Your task to perform on an android device: Open network settings Image 0: 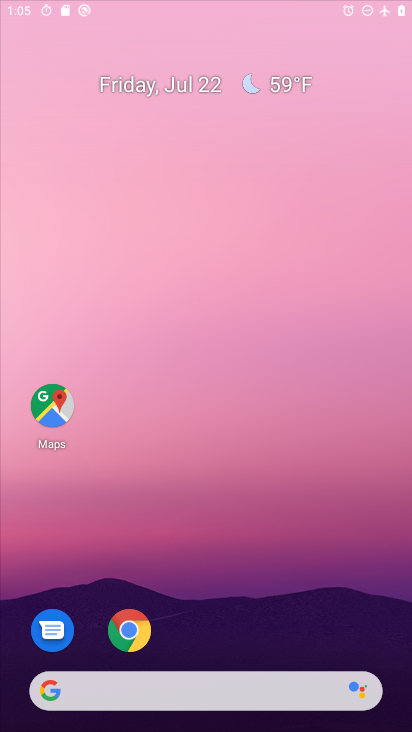
Step 0: press home button
Your task to perform on an android device: Open network settings Image 1: 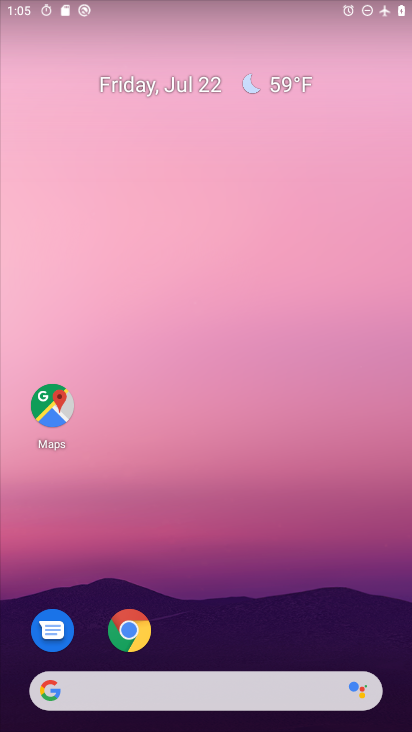
Step 1: drag from (258, 653) to (310, 96)
Your task to perform on an android device: Open network settings Image 2: 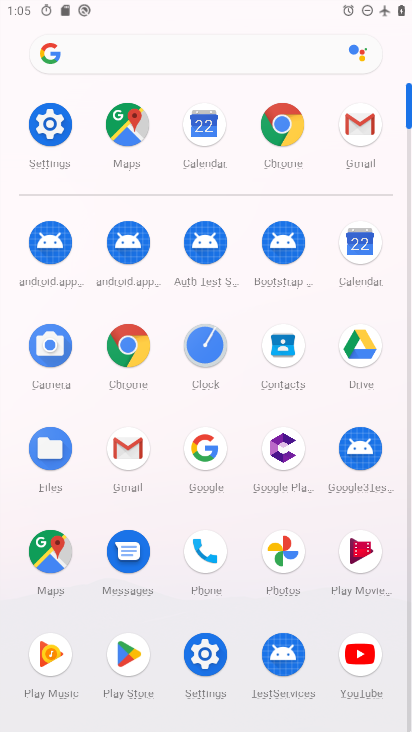
Step 2: click (50, 134)
Your task to perform on an android device: Open network settings Image 3: 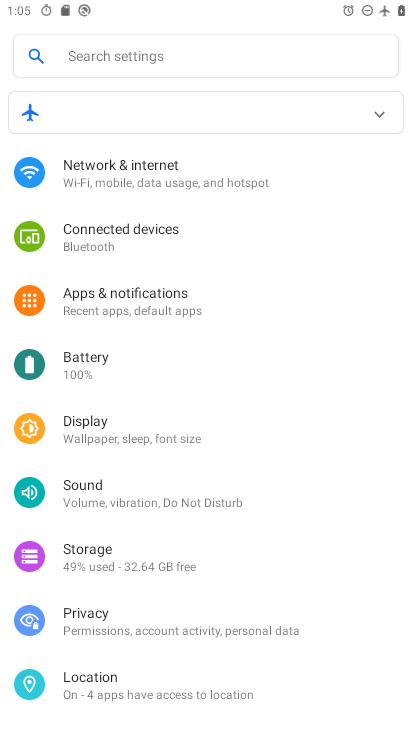
Step 3: click (105, 172)
Your task to perform on an android device: Open network settings Image 4: 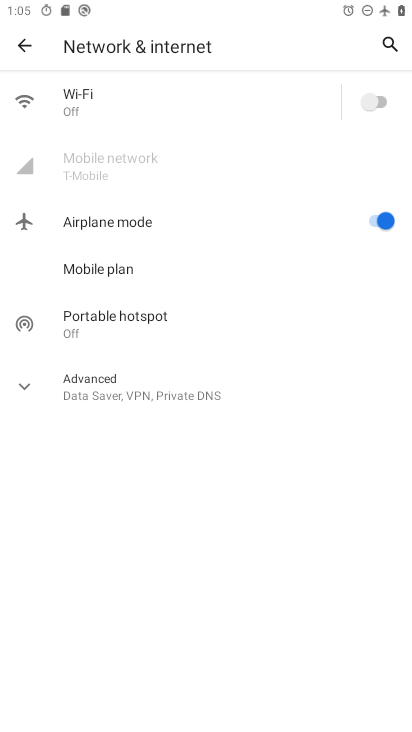
Step 4: task complete